Your task to perform on an android device: Open settings Image 0: 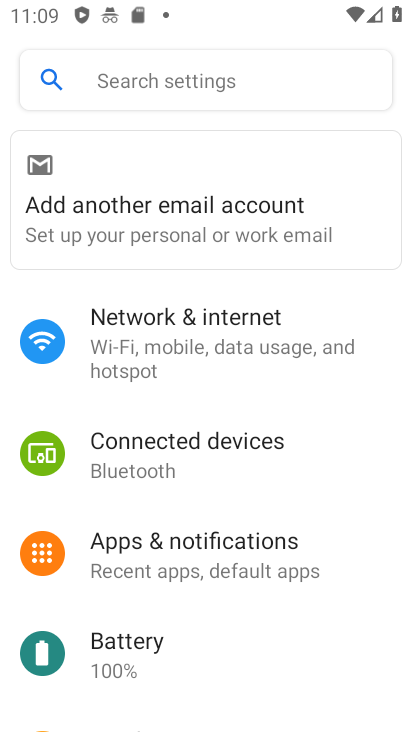
Step 0: drag from (185, 635) to (163, 263)
Your task to perform on an android device: Open settings Image 1: 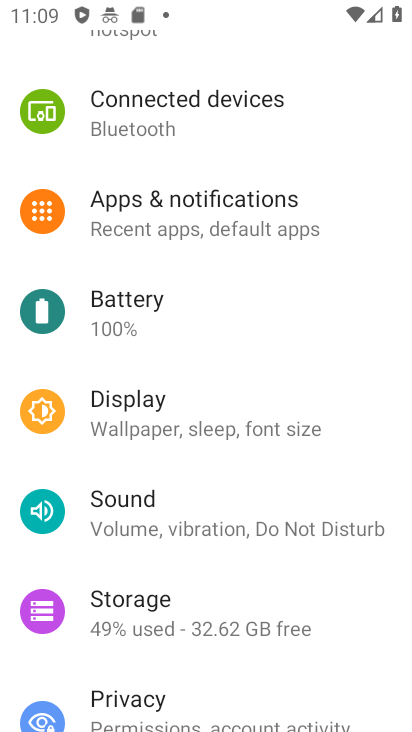
Step 1: task complete